Your task to perform on an android device: What's the weather going to be this weekend? Image 0: 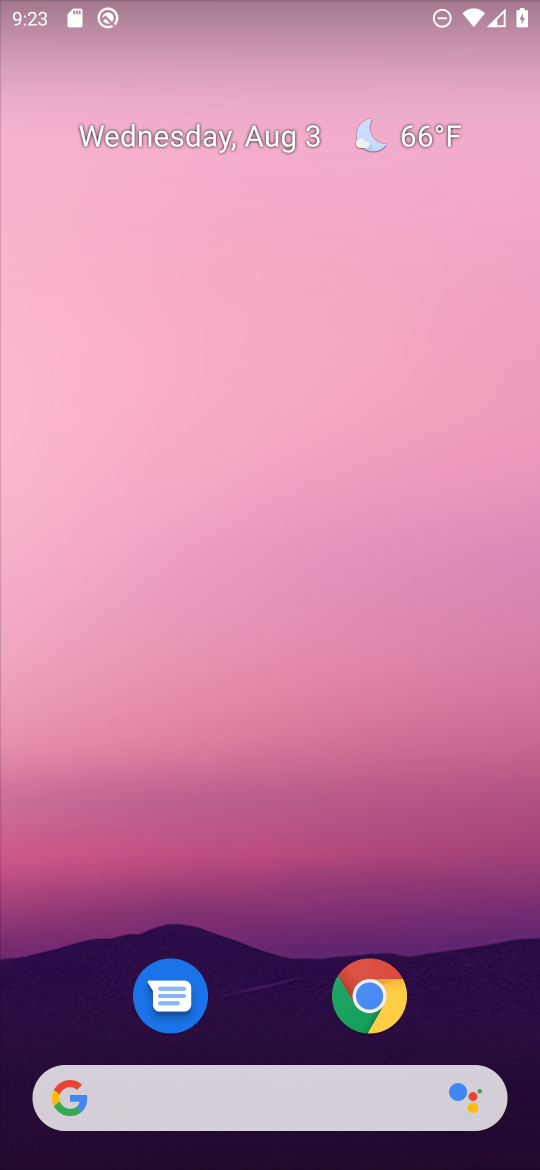
Step 0: click (409, 139)
Your task to perform on an android device: What's the weather going to be this weekend? Image 1: 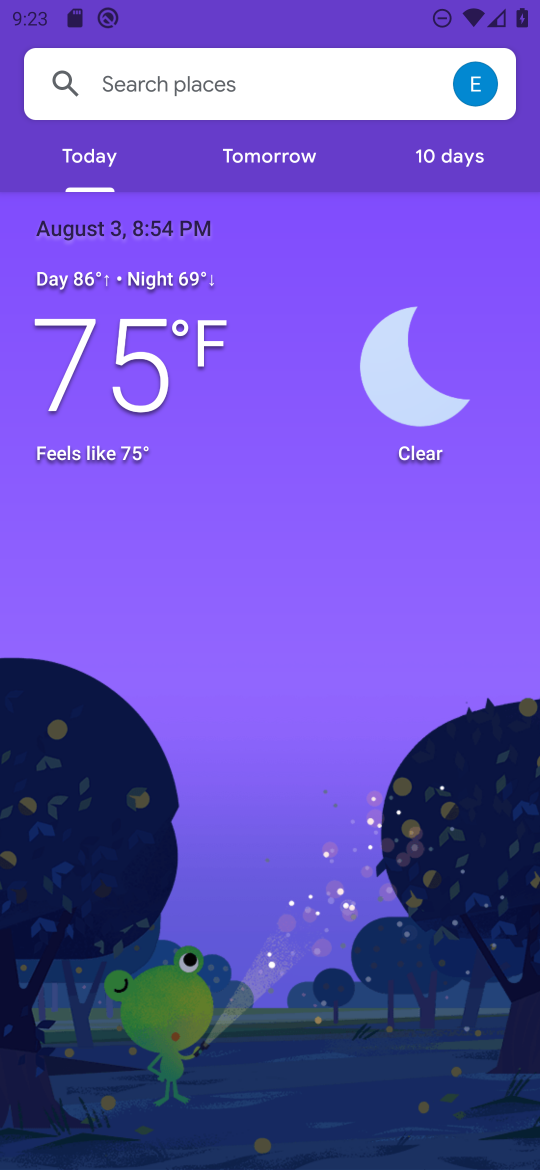
Step 1: click (455, 166)
Your task to perform on an android device: What's the weather going to be this weekend? Image 2: 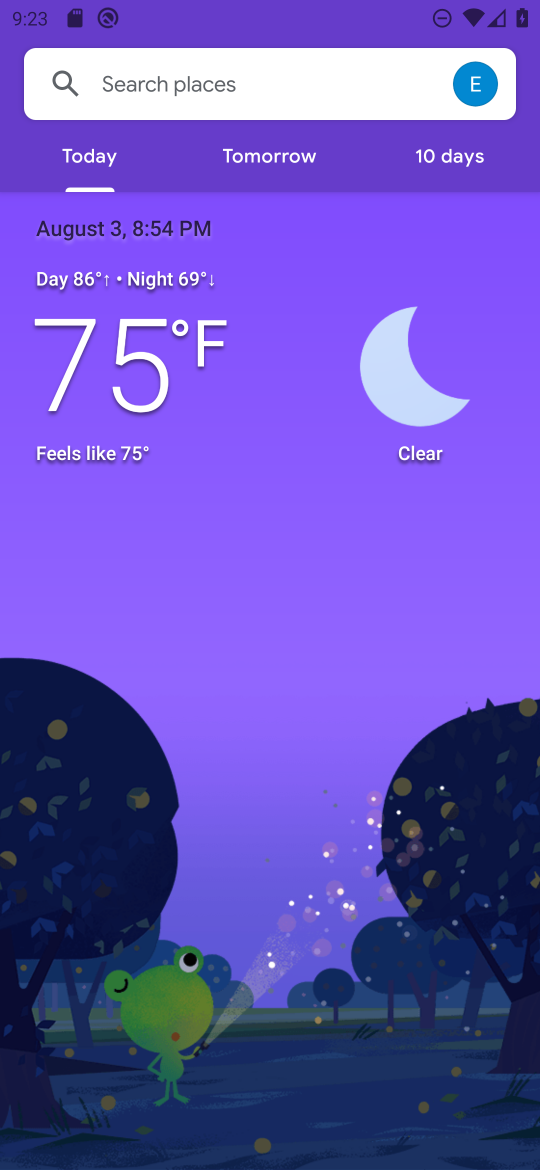
Step 2: click (455, 156)
Your task to perform on an android device: What's the weather going to be this weekend? Image 3: 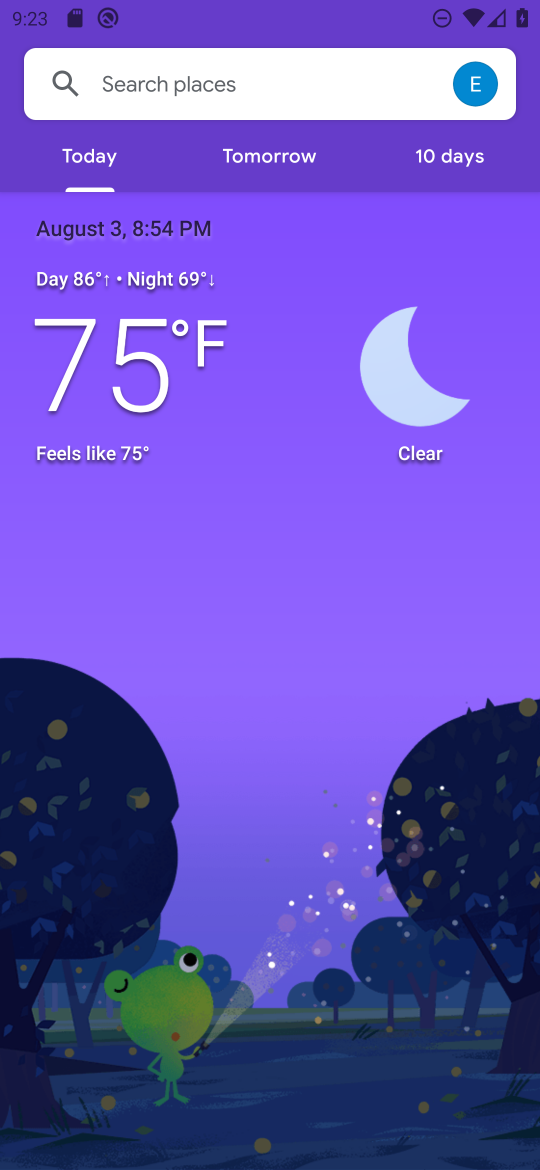
Step 3: click (457, 154)
Your task to perform on an android device: What's the weather going to be this weekend? Image 4: 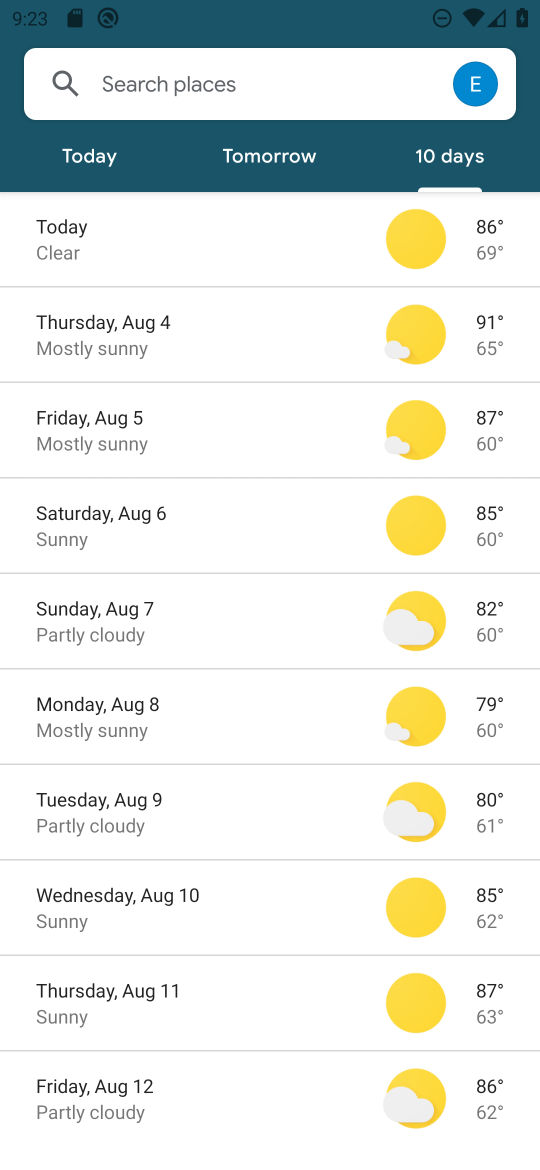
Step 4: click (177, 508)
Your task to perform on an android device: What's the weather going to be this weekend? Image 5: 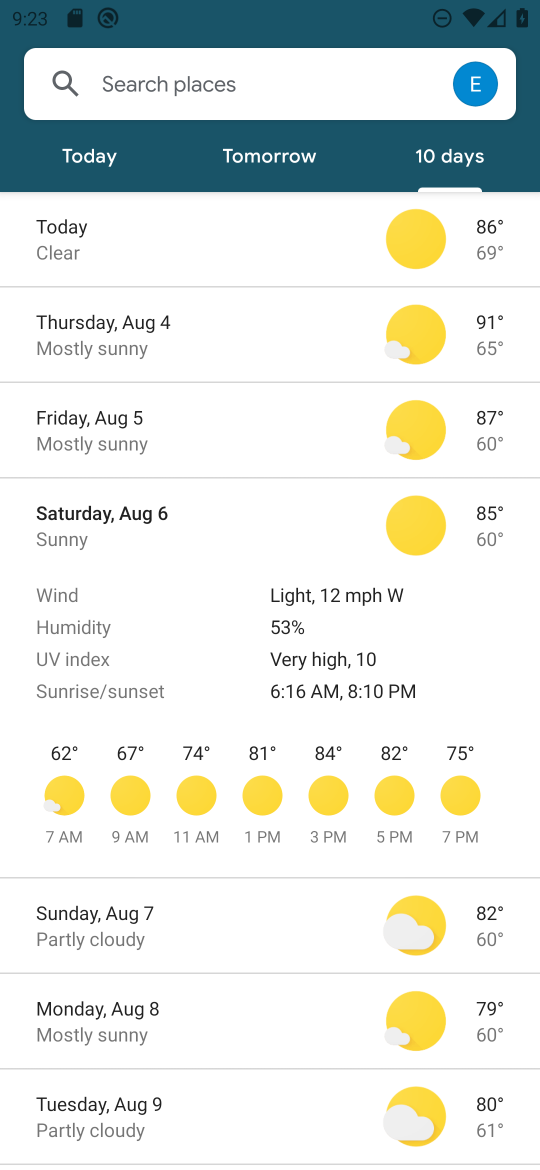
Step 5: task complete